Your task to perform on an android device: open device folders in google photos Image 0: 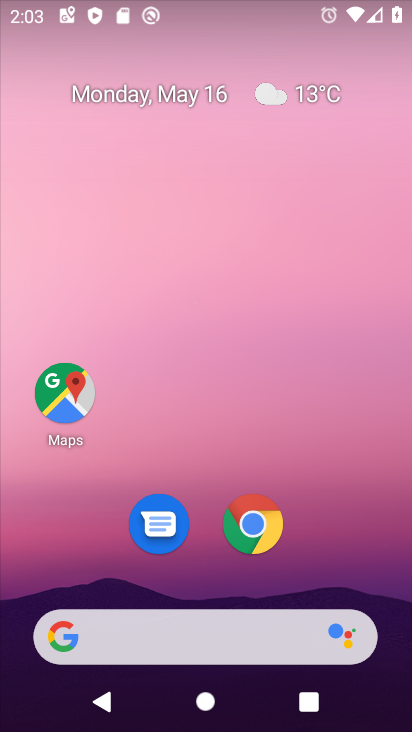
Step 0: drag from (310, 546) to (304, 56)
Your task to perform on an android device: open device folders in google photos Image 1: 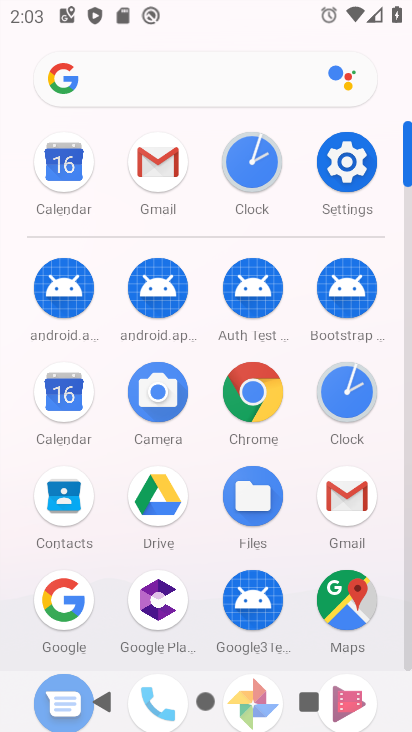
Step 1: drag from (305, 522) to (296, 219)
Your task to perform on an android device: open device folders in google photos Image 2: 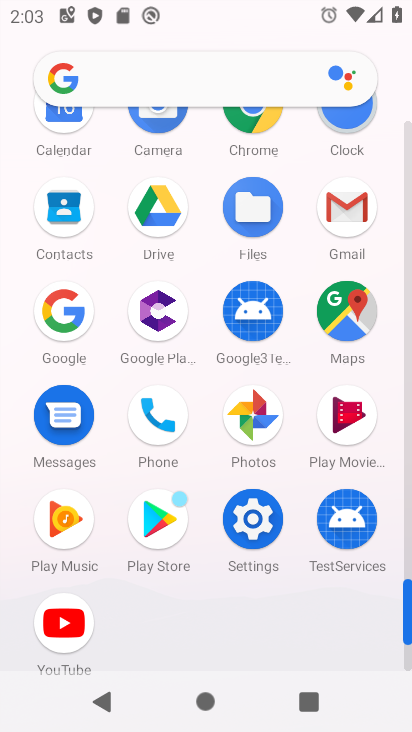
Step 2: click (266, 402)
Your task to perform on an android device: open device folders in google photos Image 3: 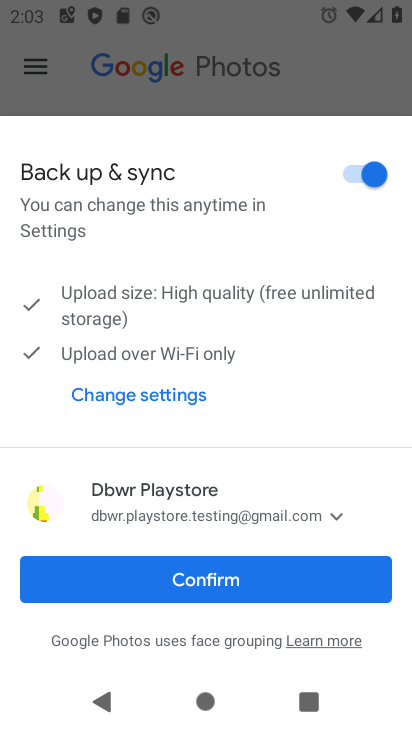
Step 3: click (263, 579)
Your task to perform on an android device: open device folders in google photos Image 4: 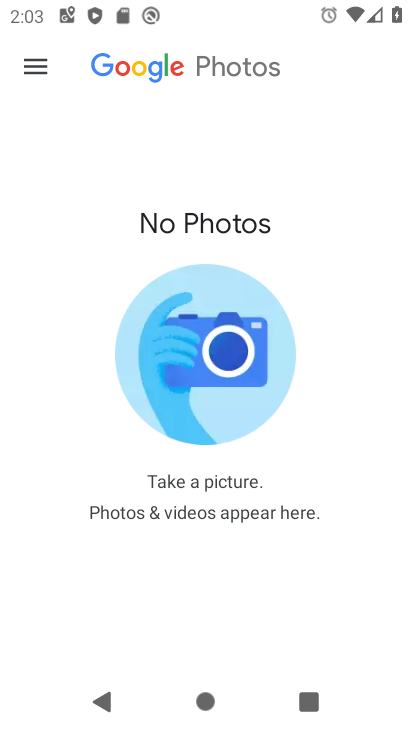
Step 4: click (37, 72)
Your task to perform on an android device: open device folders in google photos Image 5: 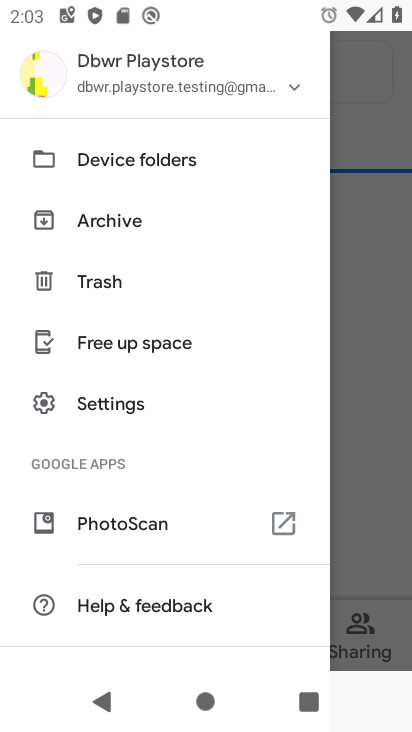
Step 5: click (85, 153)
Your task to perform on an android device: open device folders in google photos Image 6: 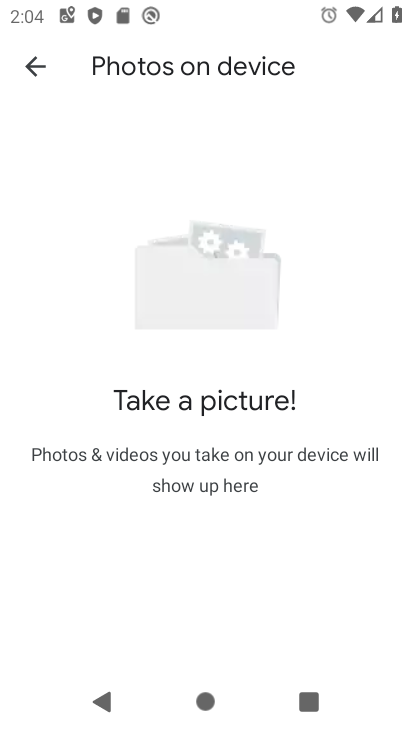
Step 6: task complete